Your task to perform on an android device: turn on sleep mode Image 0: 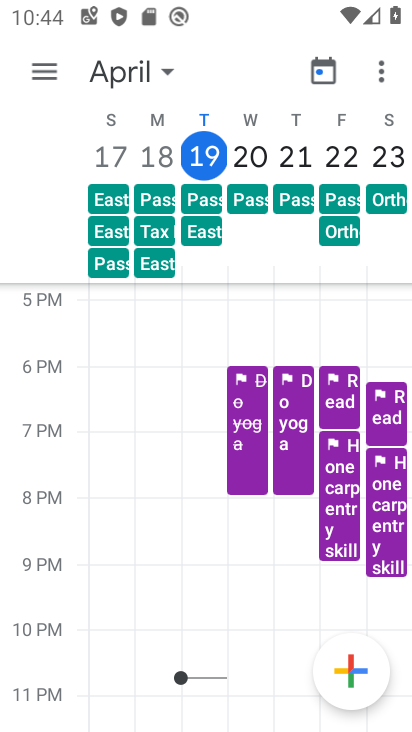
Step 0: press home button
Your task to perform on an android device: turn on sleep mode Image 1: 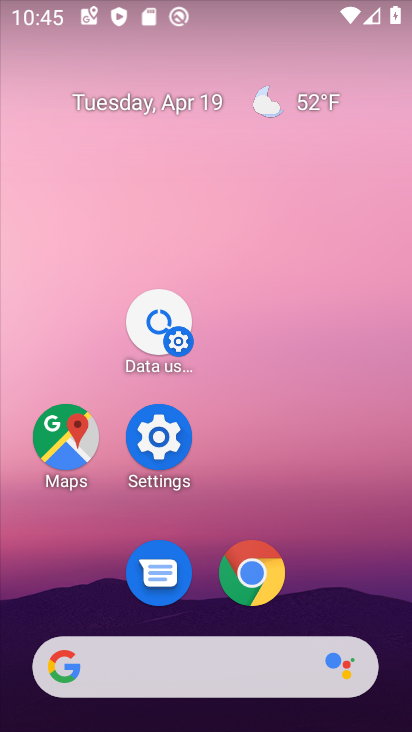
Step 1: click (158, 436)
Your task to perform on an android device: turn on sleep mode Image 2: 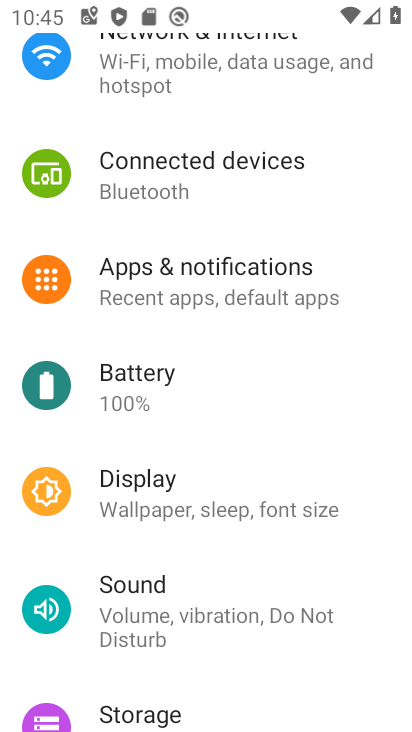
Step 2: click (141, 489)
Your task to perform on an android device: turn on sleep mode Image 3: 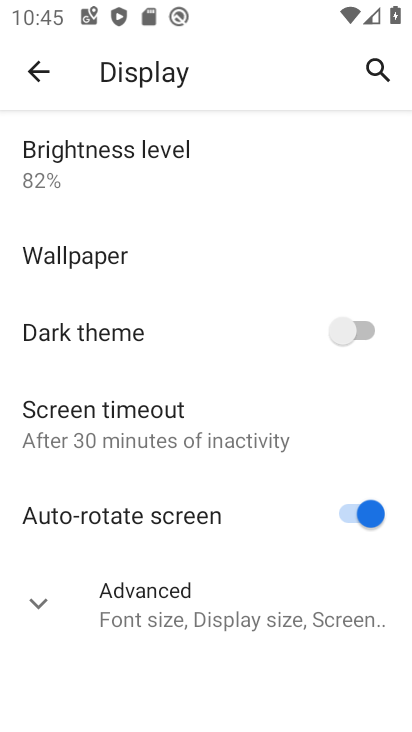
Step 3: click (42, 601)
Your task to perform on an android device: turn on sleep mode Image 4: 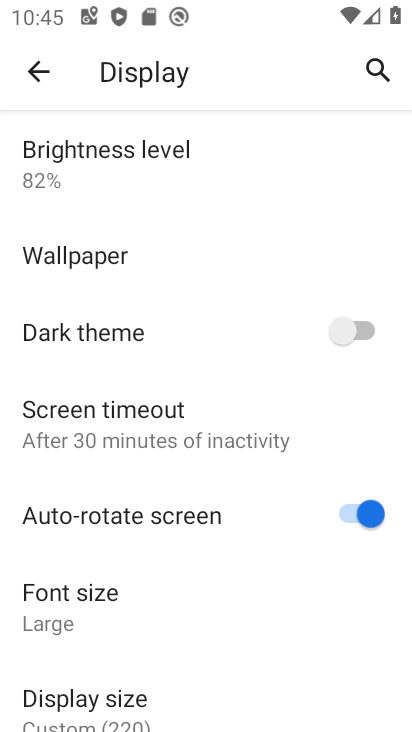
Step 4: task complete